Your task to perform on an android device: set an alarm Image 0: 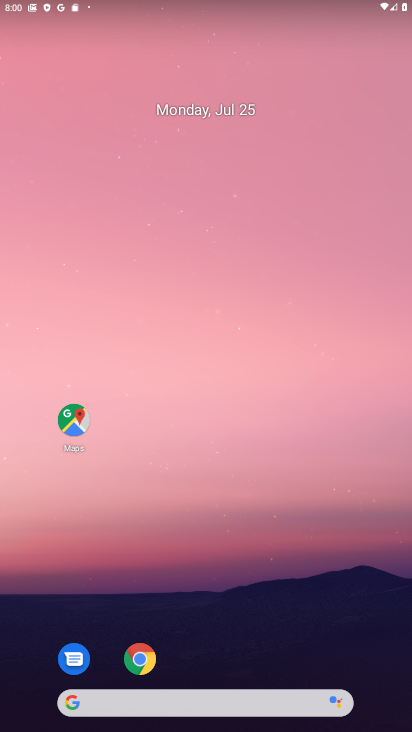
Step 0: drag from (205, 650) to (142, 150)
Your task to perform on an android device: set an alarm Image 1: 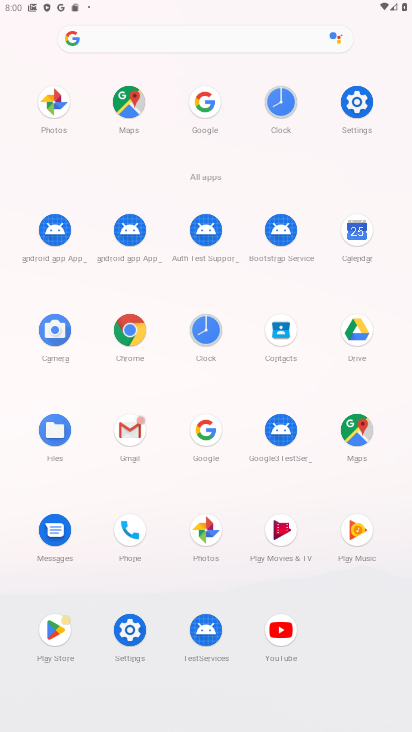
Step 1: click (212, 346)
Your task to perform on an android device: set an alarm Image 2: 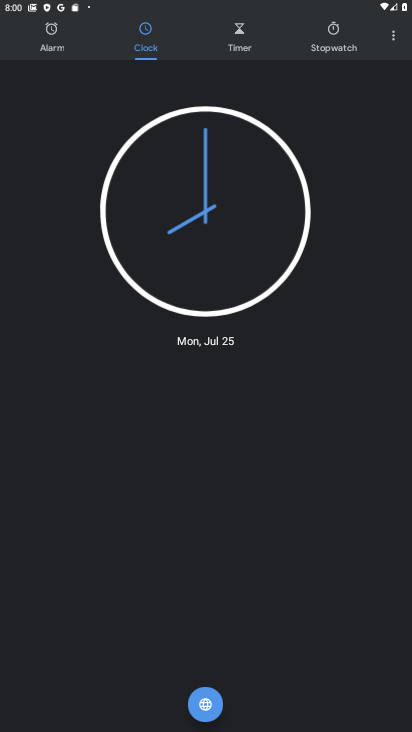
Step 2: click (64, 58)
Your task to perform on an android device: set an alarm Image 3: 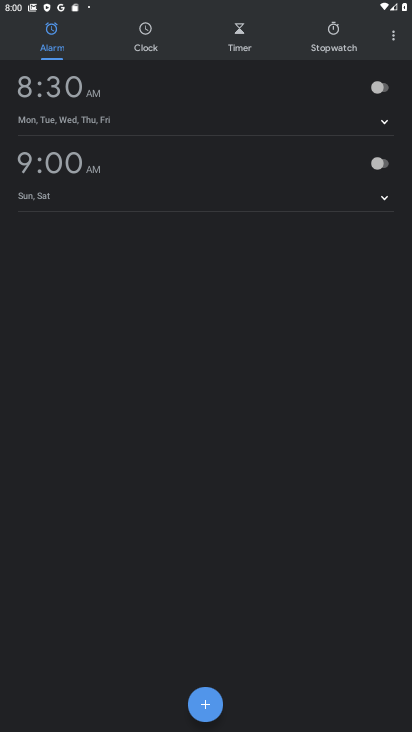
Step 3: click (216, 710)
Your task to perform on an android device: set an alarm Image 4: 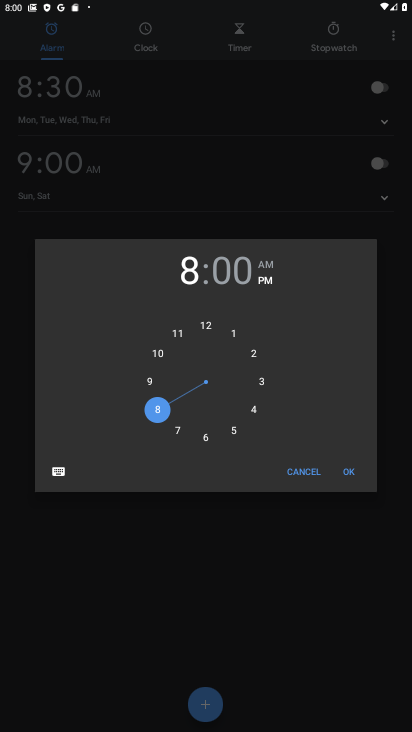
Step 4: click (351, 473)
Your task to perform on an android device: set an alarm Image 5: 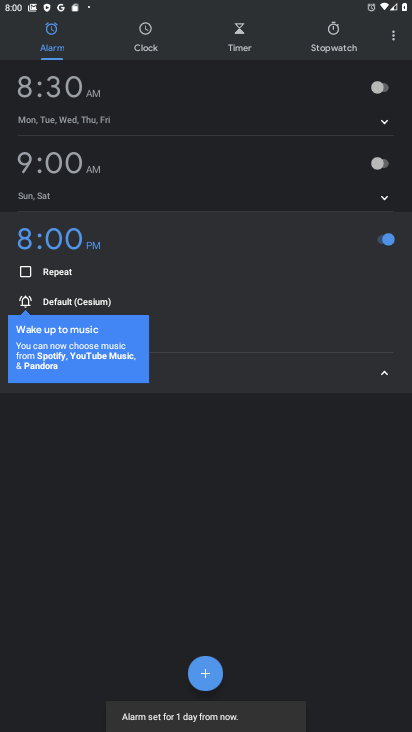
Step 5: task complete